Your task to perform on an android device: Play the new Katy Perry video on YouTube Image 0: 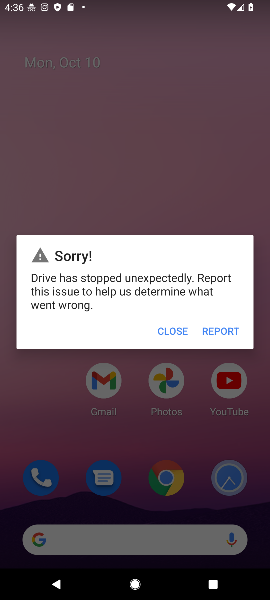
Step 0: click (170, 337)
Your task to perform on an android device: Play the new Katy Perry video on YouTube Image 1: 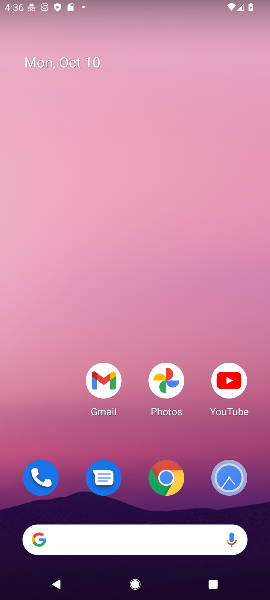
Step 1: click (239, 385)
Your task to perform on an android device: Play the new Katy Perry video on YouTube Image 2: 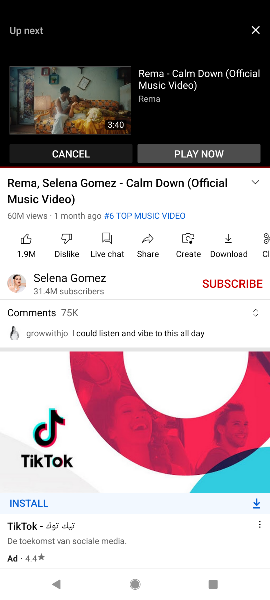
Step 2: click (257, 27)
Your task to perform on an android device: Play the new Katy Perry video on YouTube Image 3: 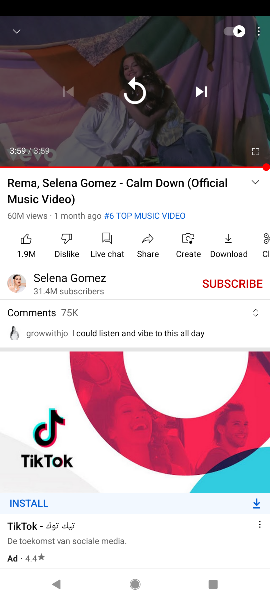
Step 3: click (14, 35)
Your task to perform on an android device: Play the new Katy Perry video on YouTube Image 4: 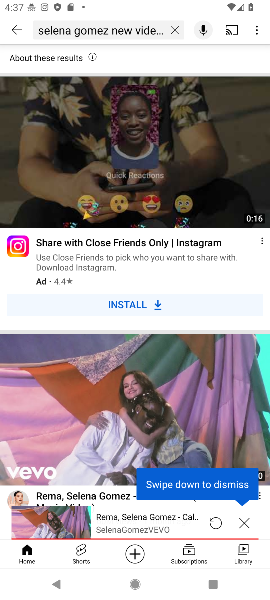
Step 4: click (174, 26)
Your task to perform on an android device: Play the new Katy Perry video on YouTube Image 5: 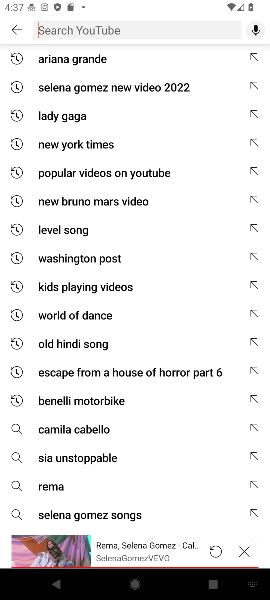
Step 5: type "Play the new Katy Perry video on YouTube"
Your task to perform on an android device: Play the new Katy Perry video on YouTube Image 6: 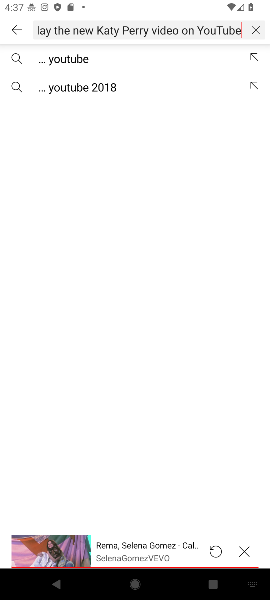
Step 6: click (156, 56)
Your task to perform on an android device: Play the new Katy Perry video on YouTube Image 7: 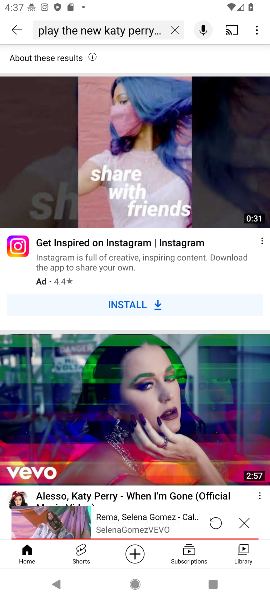
Step 7: click (172, 364)
Your task to perform on an android device: Play the new Katy Perry video on YouTube Image 8: 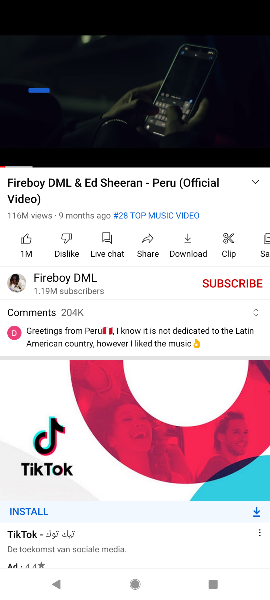
Step 8: task complete